Your task to perform on an android device: Set an alarm for 8am Image 0: 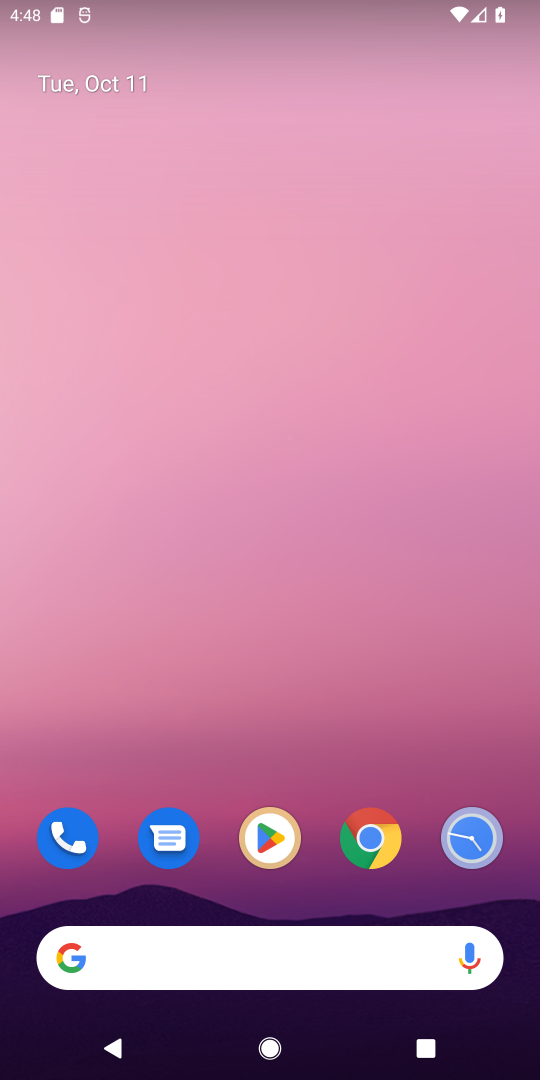
Step 0: click (473, 824)
Your task to perform on an android device: Set an alarm for 8am Image 1: 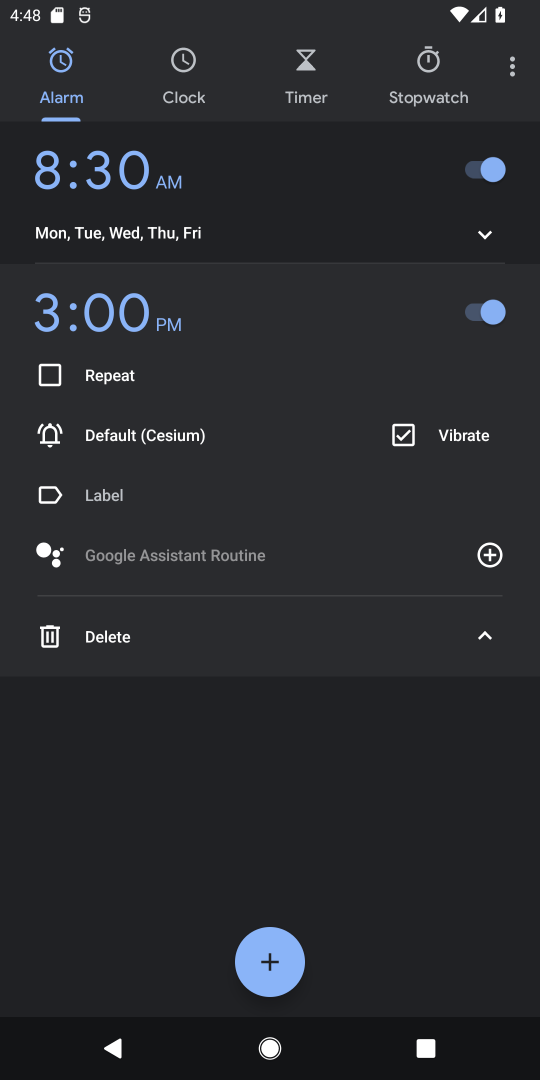
Step 1: click (487, 238)
Your task to perform on an android device: Set an alarm for 8am Image 2: 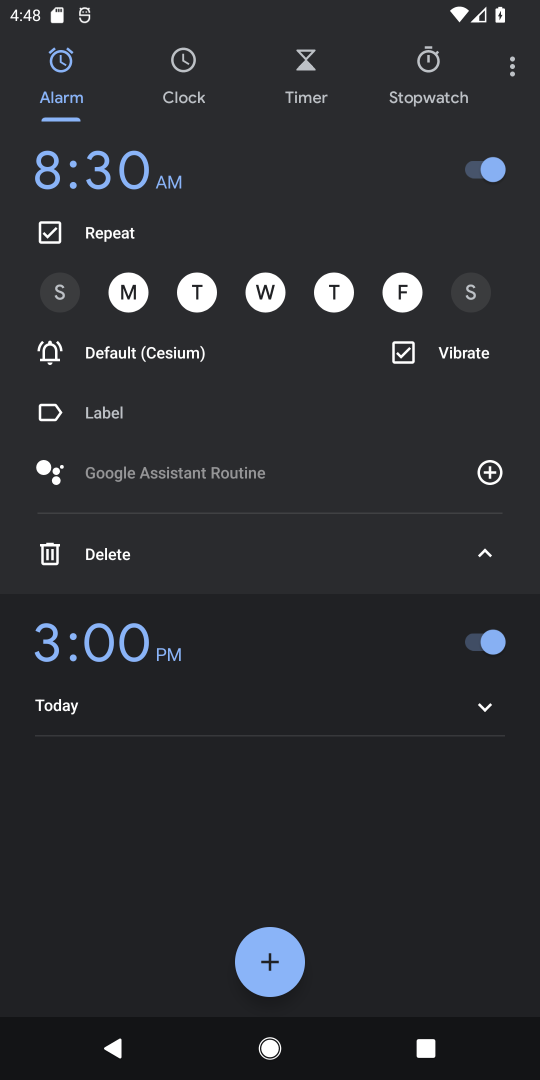
Step 2: click (117, 650)
Your task to perform on an android device: Set an alarm for 8am Image 3: 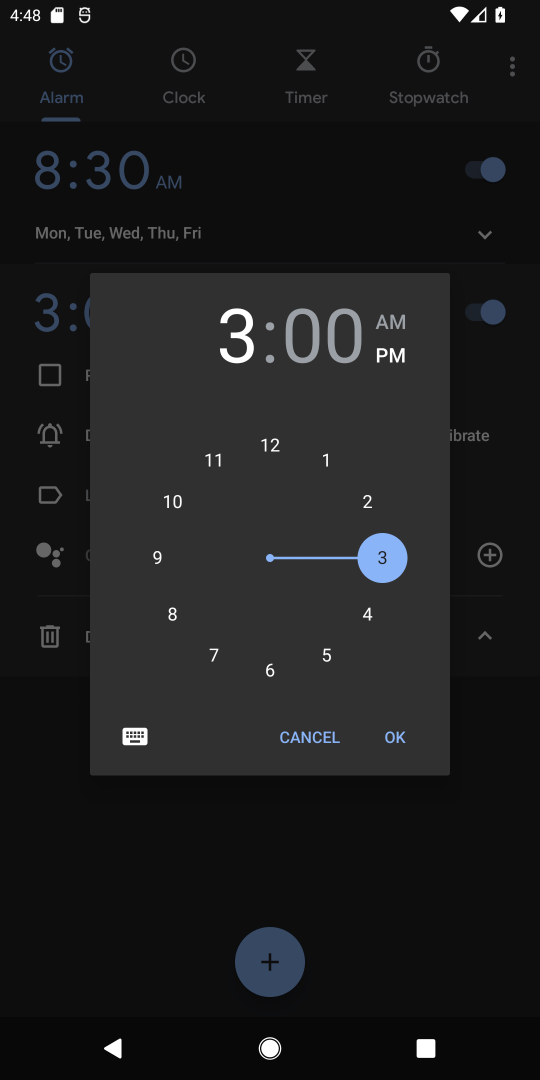
Step 3: click (167, 614)
Your task to perform on an android device: Set an alarm for 8am Image 4: 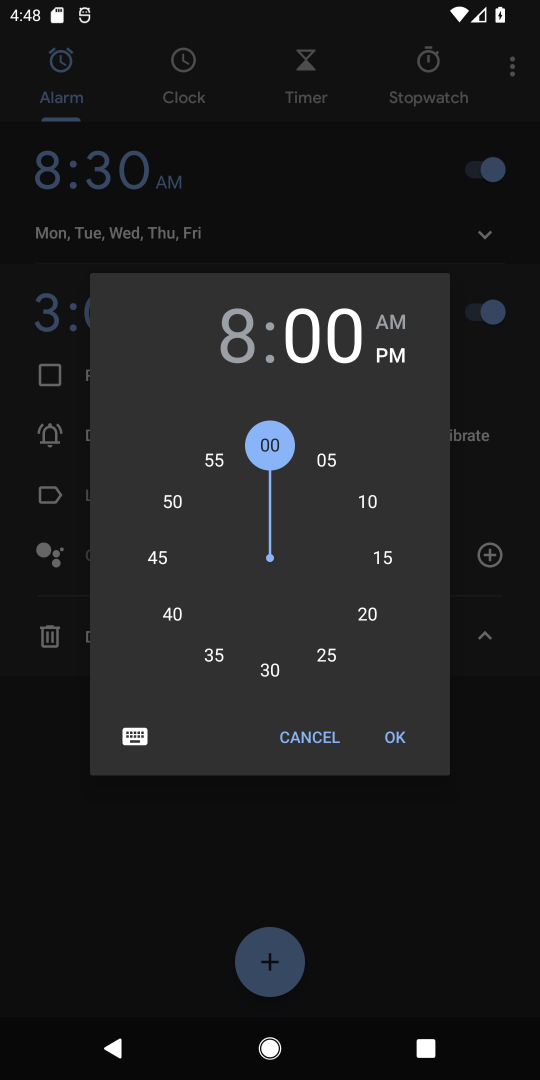
Step 4: click (401, 328)
Your task to perform on an android device: Set an alarm for 8am Image 5: 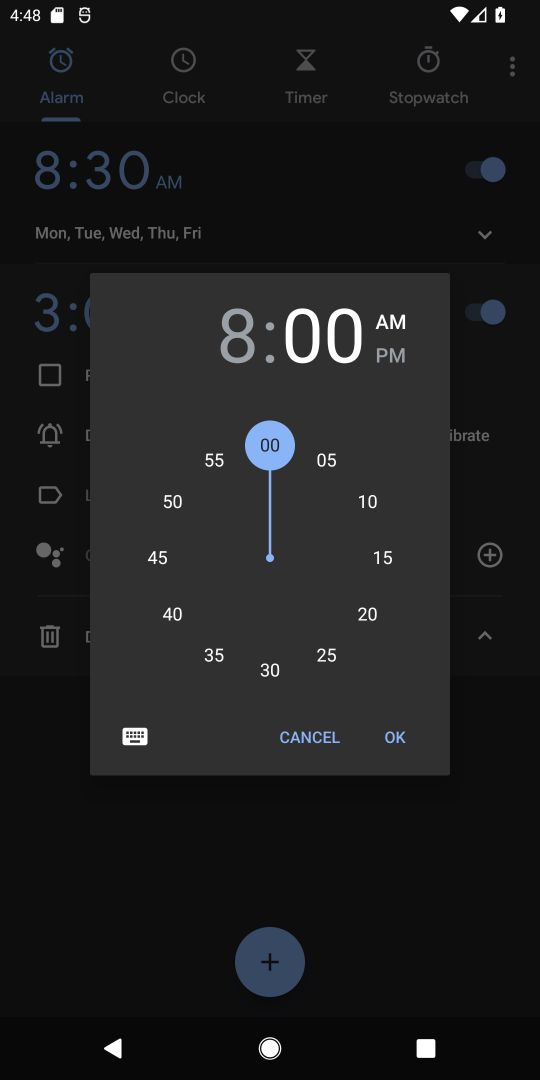
Step 5: click (390, 737)
Your task to perform on an android device: Set an alarm for 8am Image 6: 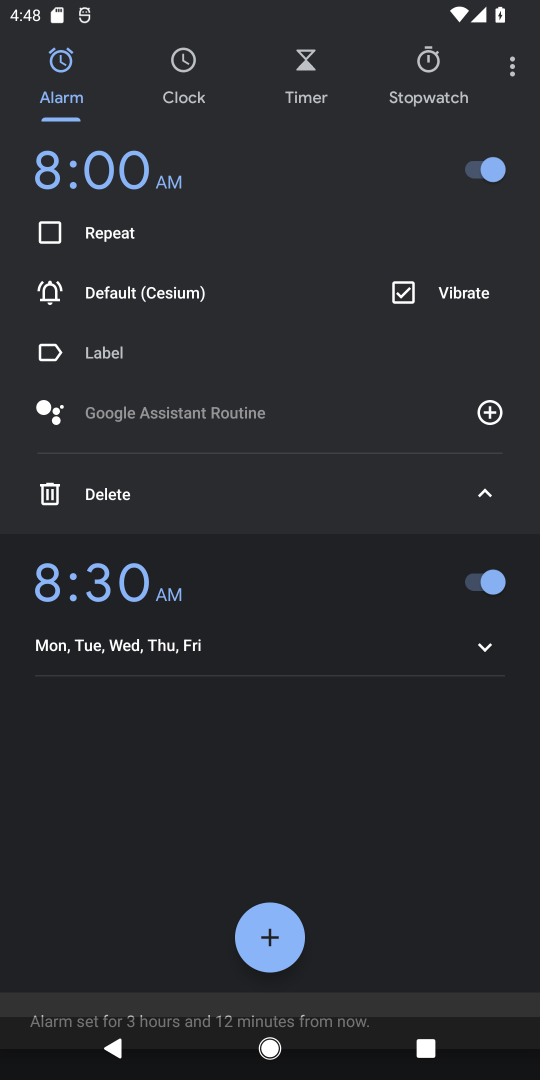
Step 6: click (490, 654)
Your task to perform on an android device: Set an alarm for 8am Image 7: 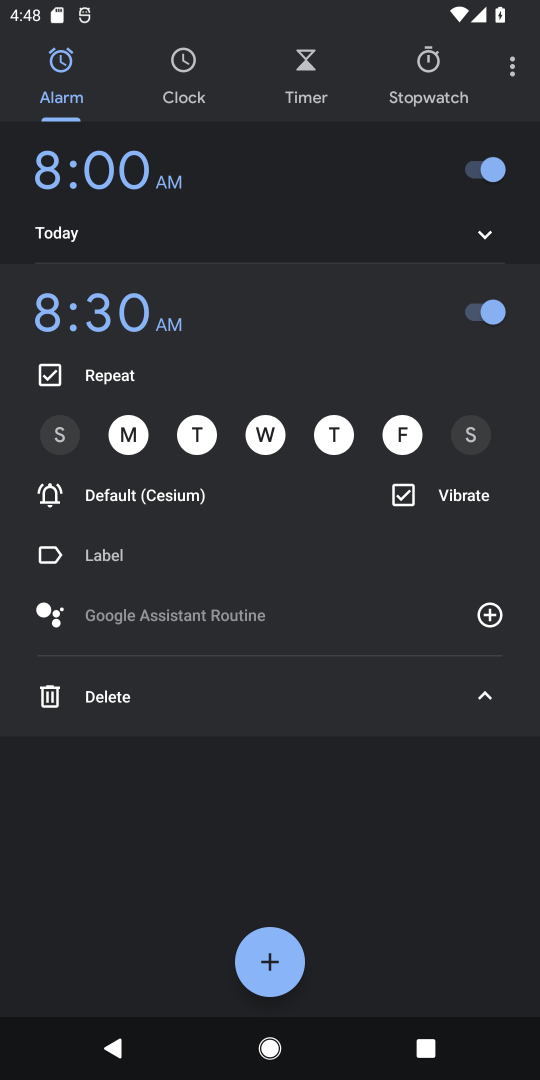
Step 7: click (47, 327)
Your task to perform on an android device: Set an alarm for 8am Image 8: 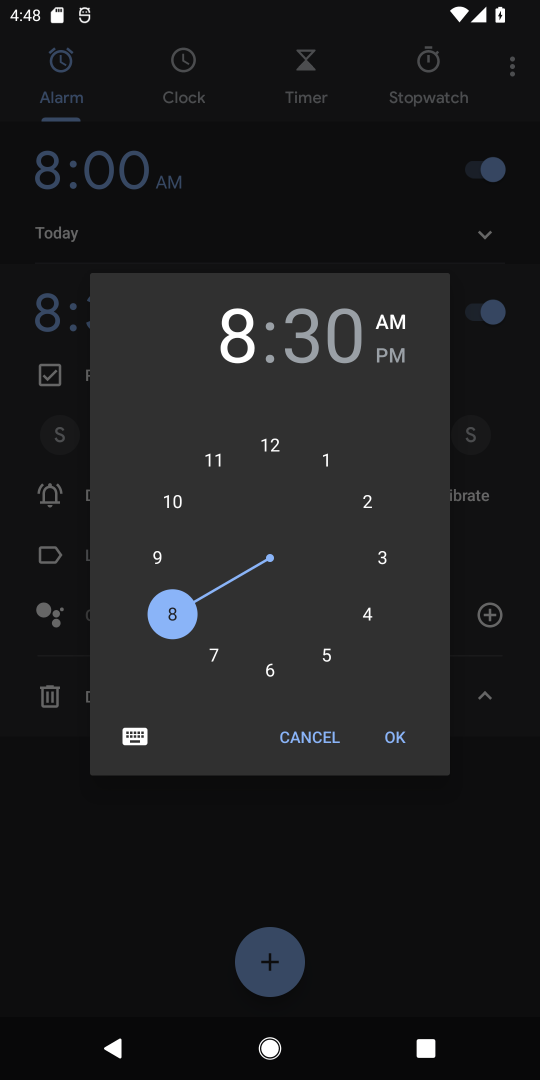
Step 8: click (183, 617)
Your task to perform on an android device: Set an alarm for 8am Image 9: 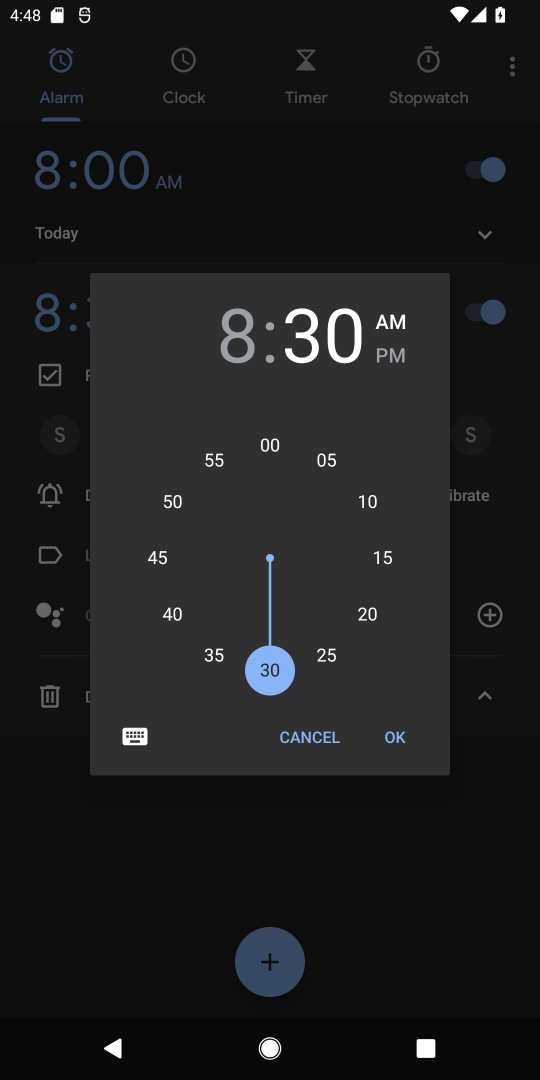
Step 9: click (378, 320)
Your task to perform on an android device: Set an alarm for 8am Image 10: 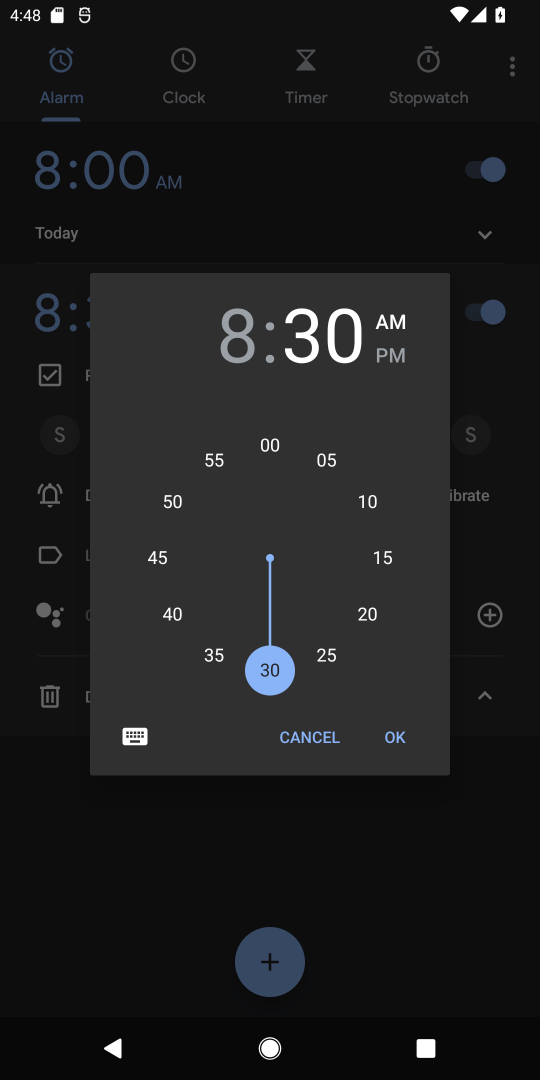
Step 10: click (210, 651)
Your task to perform on an android device: Set an alarm for 8am Image 11: 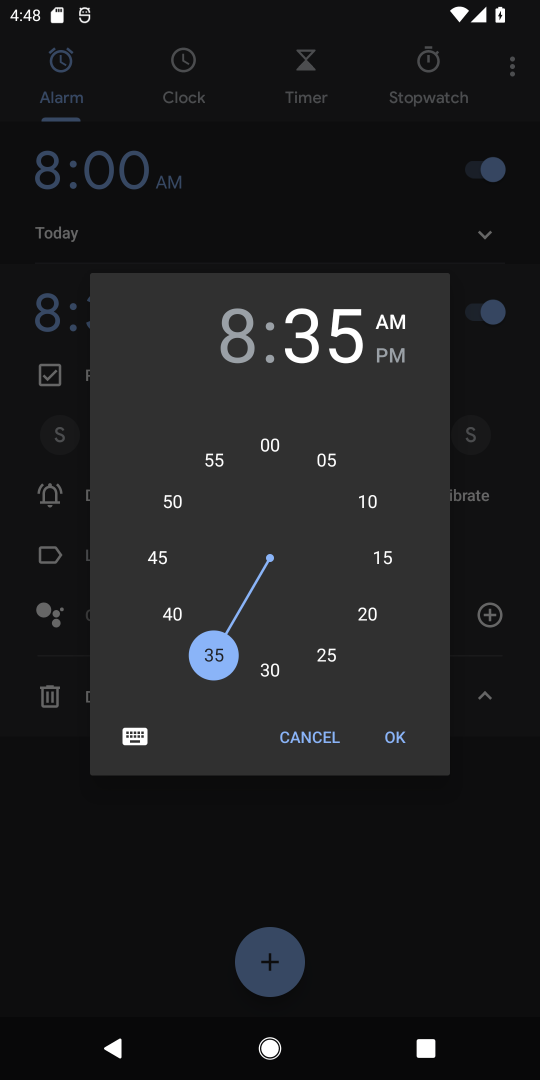
Step 11: click (179, 620)
Your task to perform on an android device: Set an alarm for 8am Image 12: 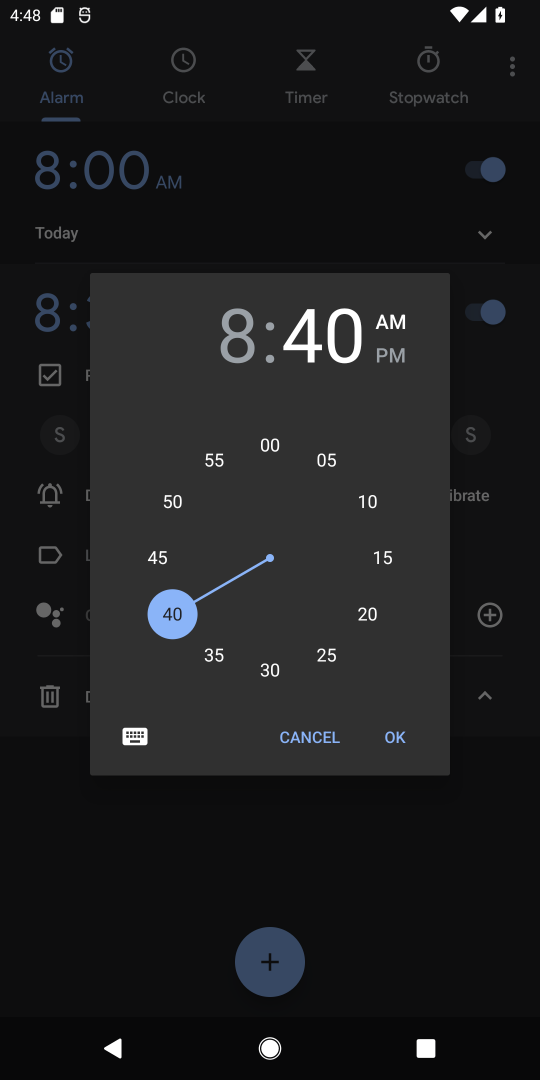
Step 12: click (263, 451)
Your task to perform on an android device: Set an alarm for 8am Image 13: 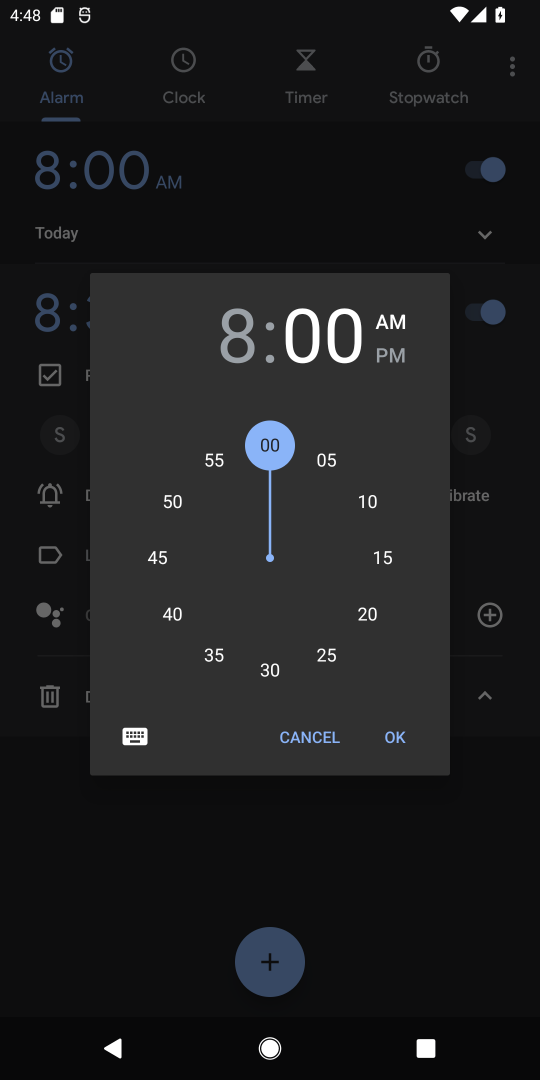
Step 13: click (396, 745)
Your task to perform on an android device: Set an alarm for 8am Image 14: 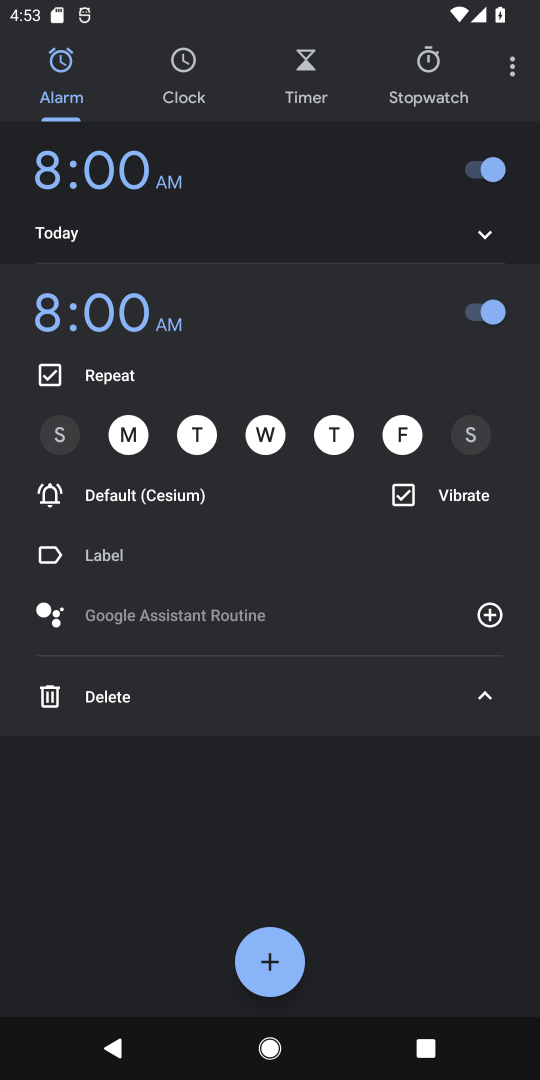
Step 14: task complete